Your task to perform on an android device: Open internet settings Image 0: 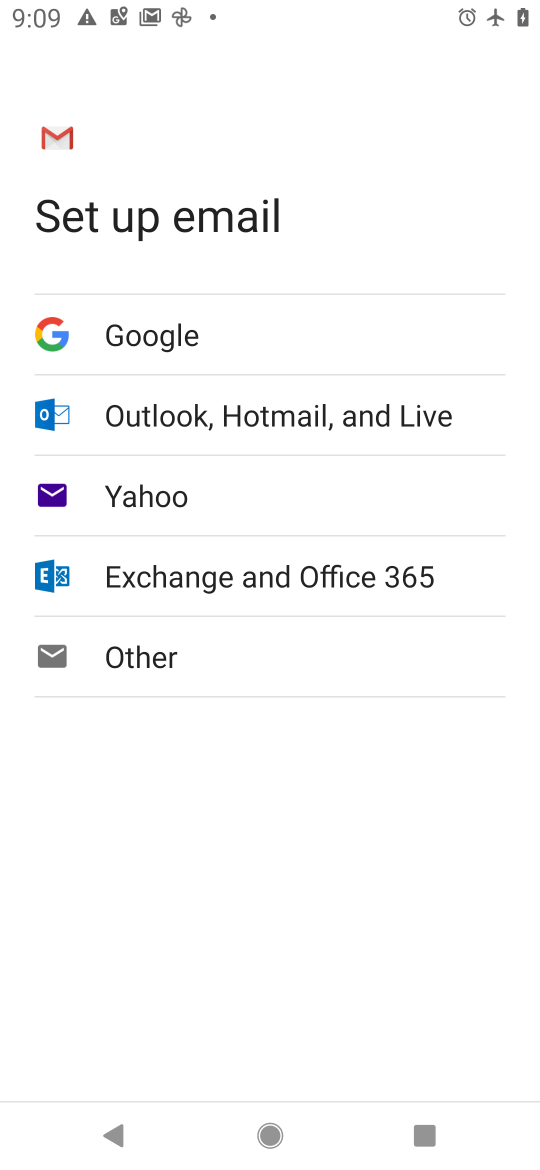
Step 0: press home button
Your task to perform on an android device: Open internet settings Image 1: 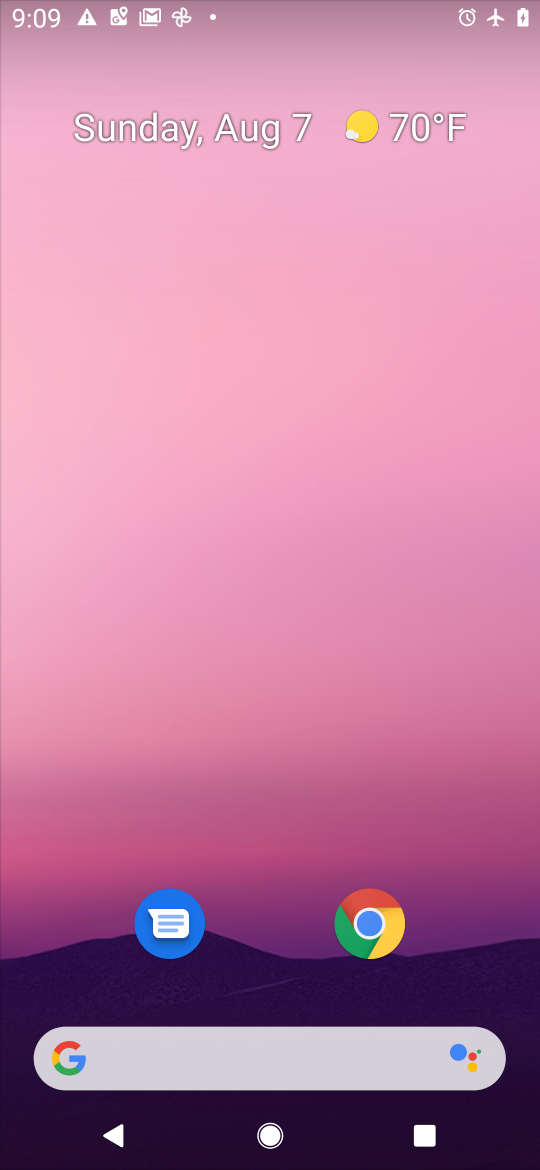
Step 1: drag from (521, 934) to (229, 90)
Your task to perform on an android device: Open internet settings Image 2: 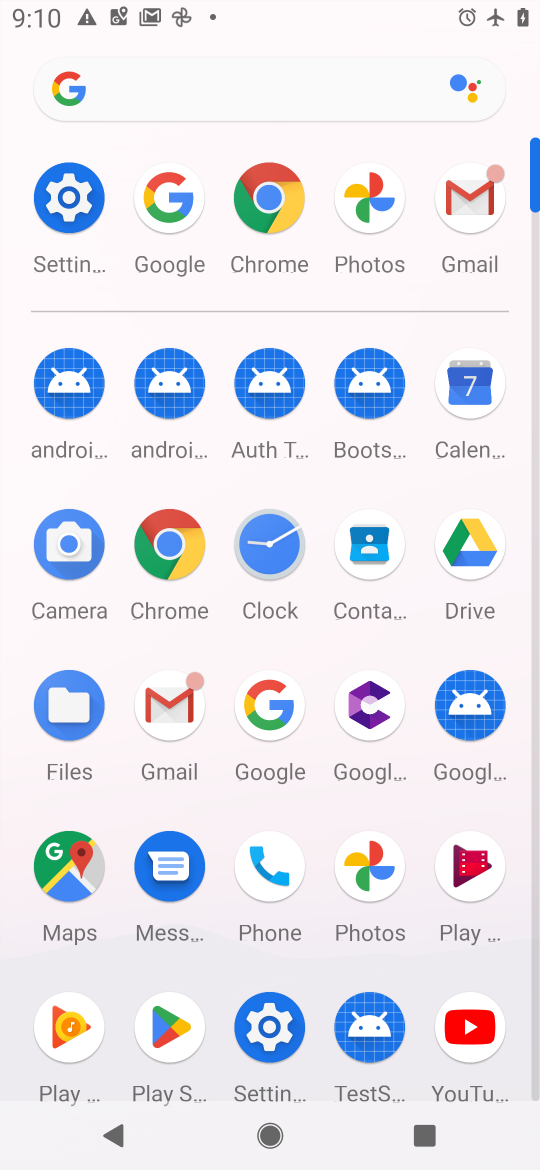
Step 2: click (283, 1024)
Your task to perform on an android device: Open internet settings Image 3: 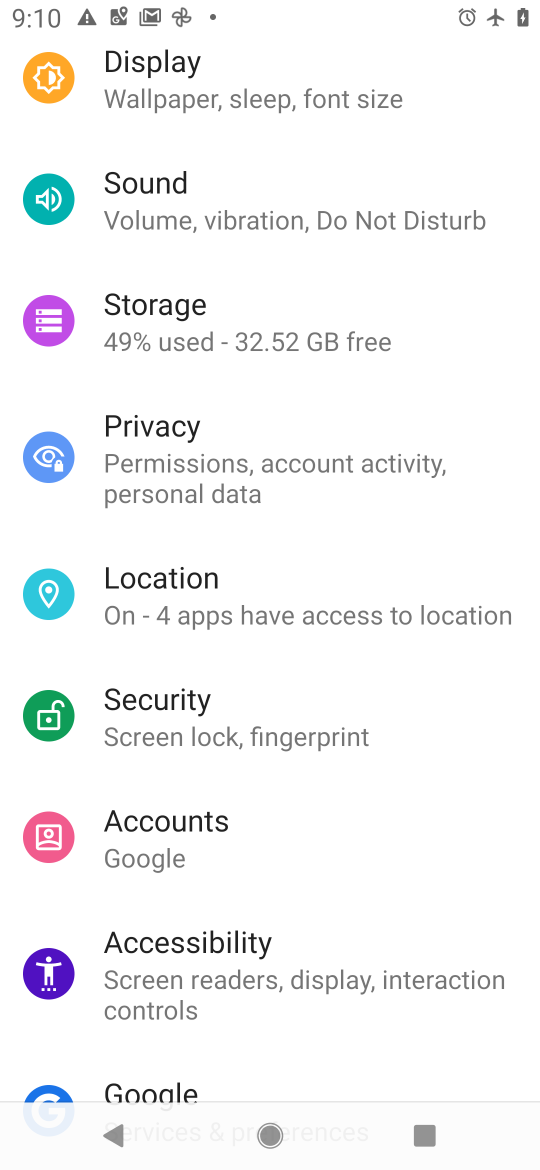
Step 3: drag from (244, 106) to (288, 1063)
Your task to perform on an android device: Open internet settings Image 4: 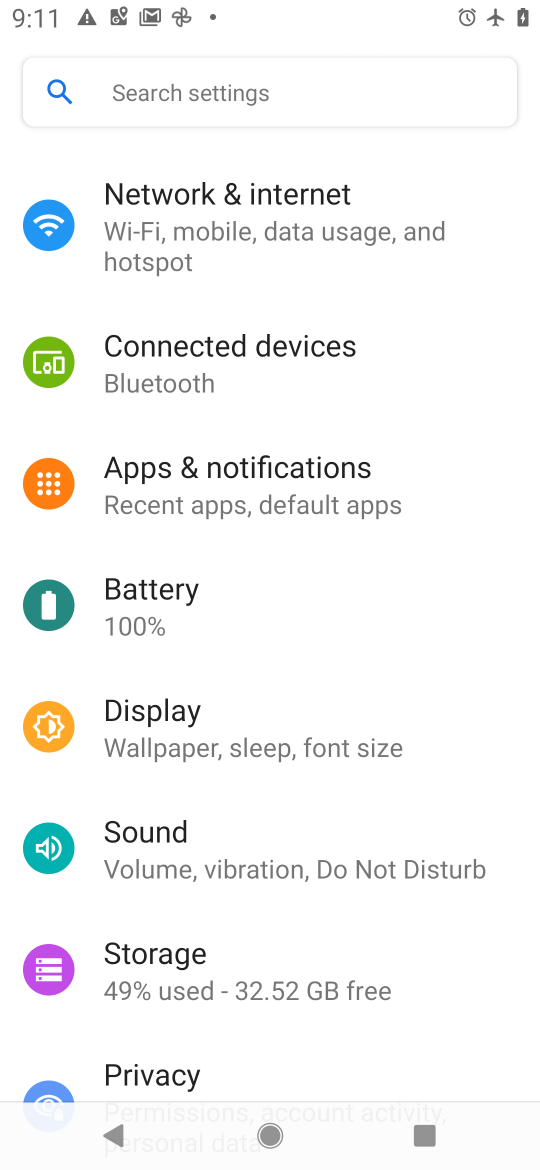
Step 4: click (202, 221)
Your task to perform on an android device: Open internet settings Image 5: 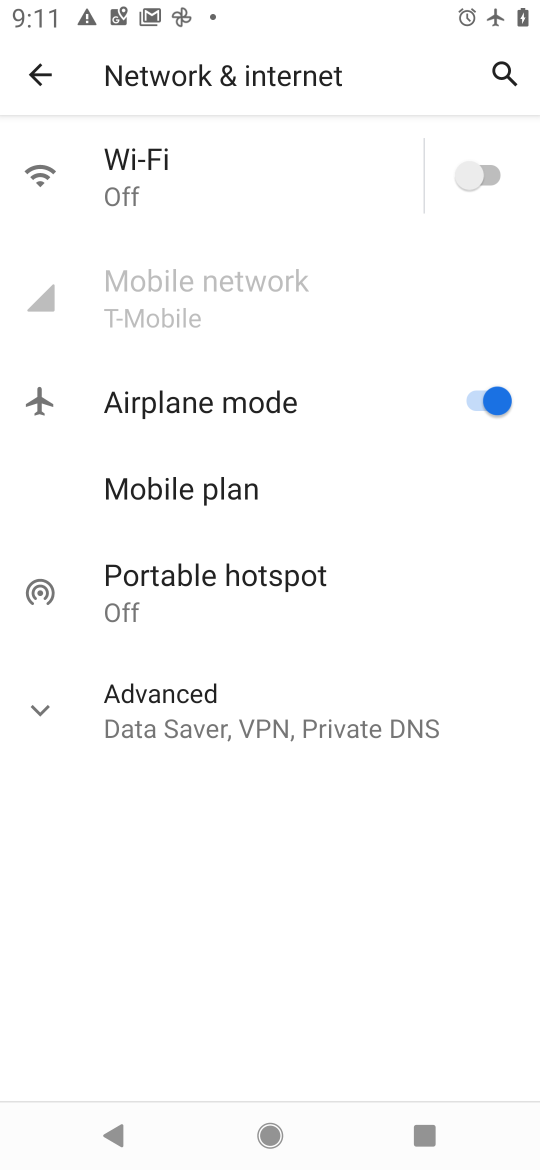
Step 5: task complete